Your task to perform on an android device: Go to Yahoo.com Image 0: 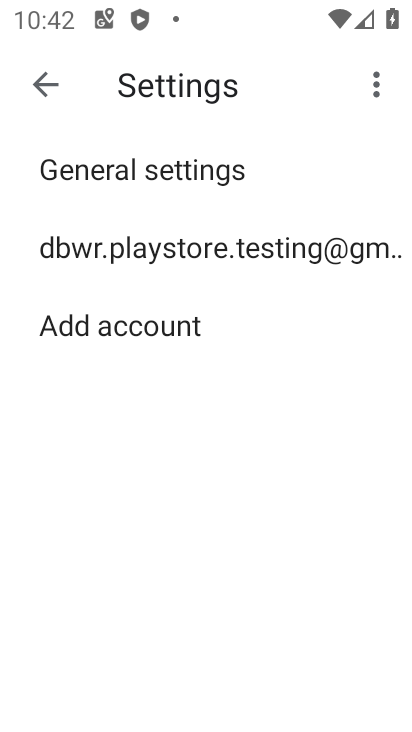
Step 0: press home button
Your task to perform on an android device: Go to Yahoo.com Image 1: 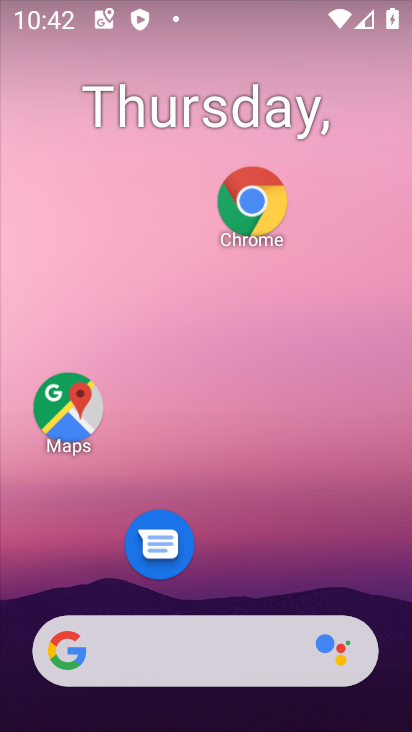
Step 1: press home button
Your task to perform on an android device: Go to Yahoo.com Image 2: 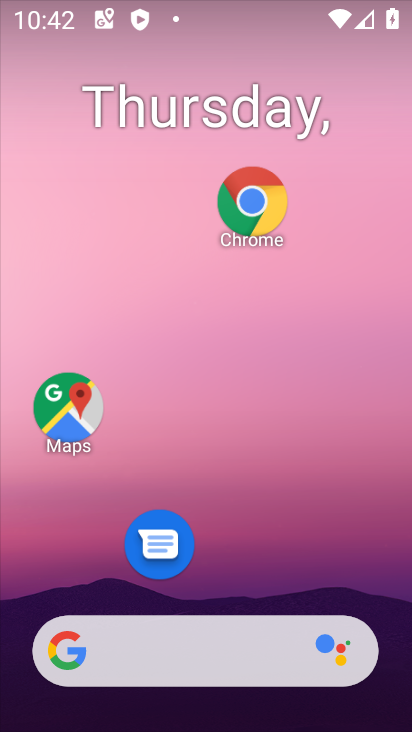
Step 2: drag from (226, 587) to (227, 57)
Your task to perform on an android device: Go to Yahoo.com Image 3: 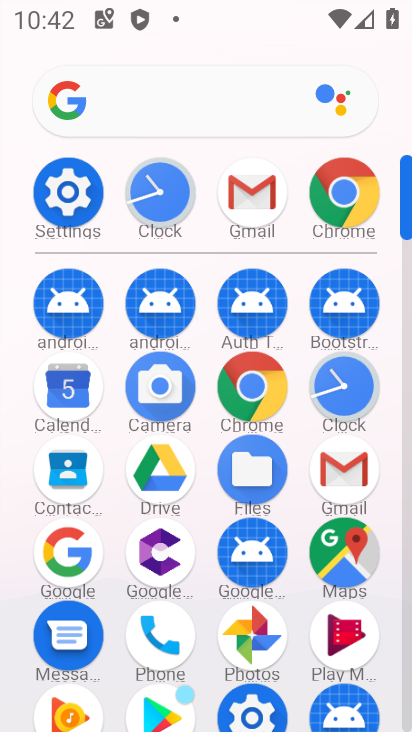
Step 3: click (340, 185)
Your task to perform on an android device: Go to Yahoo.com Image 4: 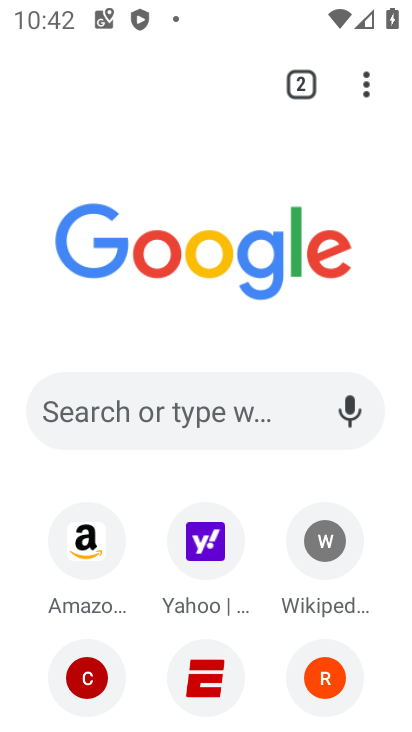
Step 4: click (202, 538)
Your task to perform on an android device: Go to Yahoo.com Image 5: 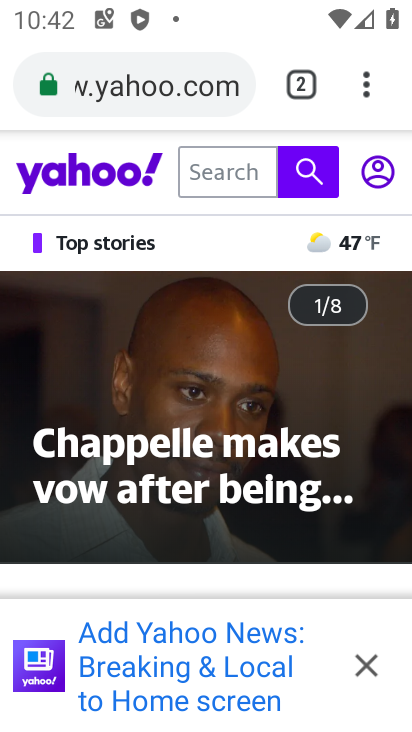
Step 5: click (363, 669)
Your task to perform on an android device: Go to Yahoo.com Image 6: 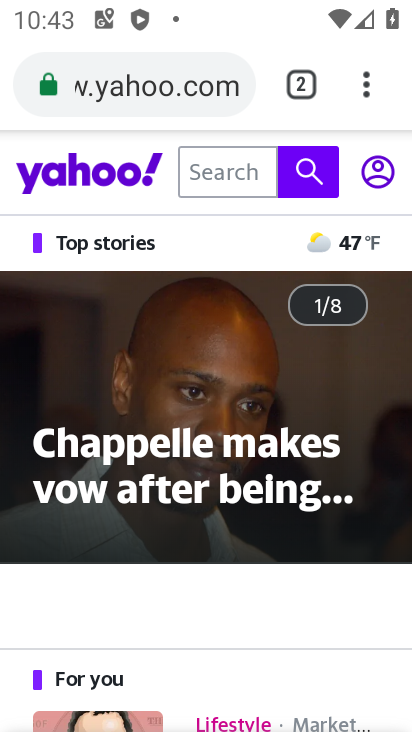
Step 6: task complete